Your task to perform on an android device: Open settings Image 0: 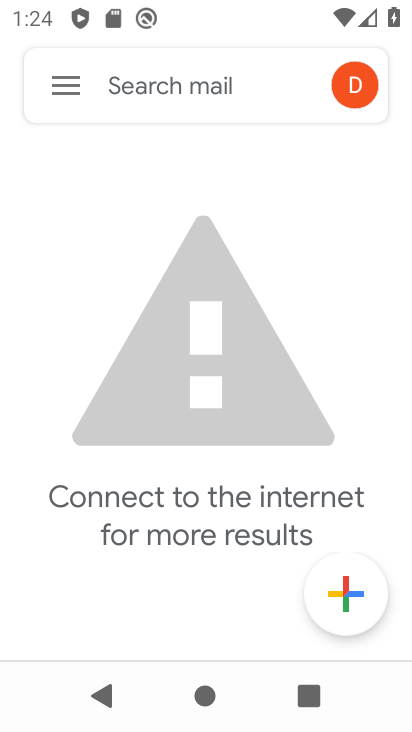
Step 0: press home button
Your task to perform on an android device: Open settings Image 1: 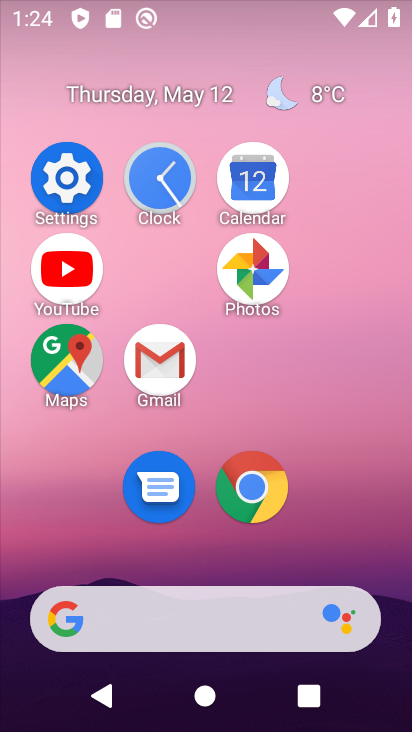
Step 1: click (69, 172)
Your task to perform on an android device: Open settings Image 2: 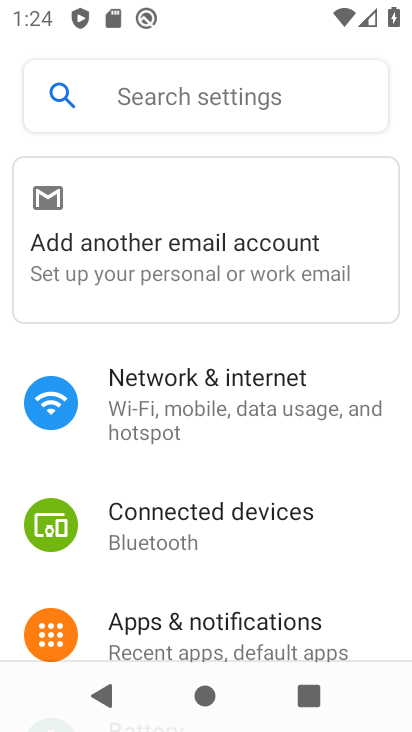
Step 2: task complete